Your task to perform on an android device: open a bookmark in the chrome app Image 0: 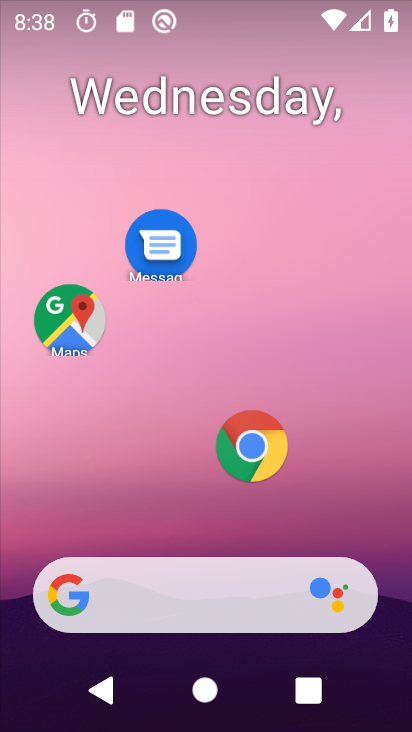
Step 0: press home button
Your task to perform on an android device: open a bookmark in the chrome app Image 1: 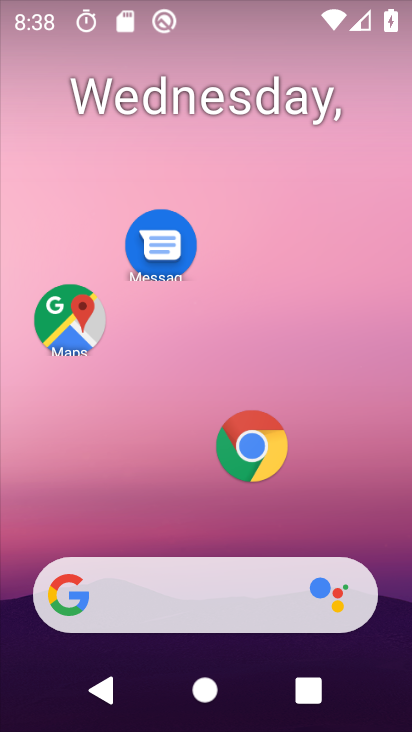
Step 1: drag from (205, 528) to (205, 398)
Your task to perform on an android device: open a bookmark in the chrome app Image 2: 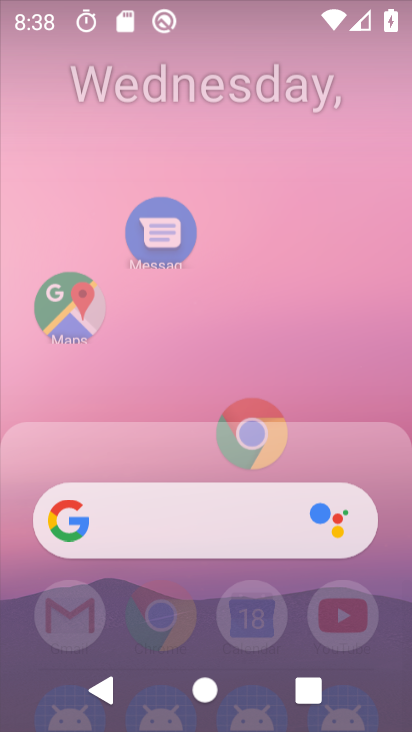
Step 2: click (206, 50)
Your task to perform on an android device: open a bookmark in the chrome app Image 3: 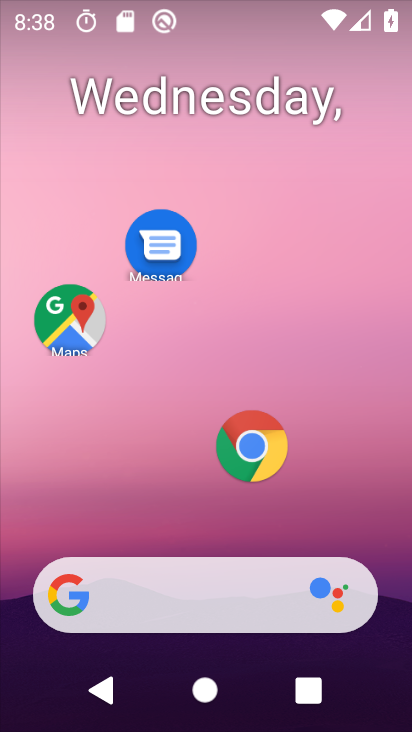
Step 3: click (247, 439)
Your task to perform on an android device: open a bookmark in the chrome app Image 4: 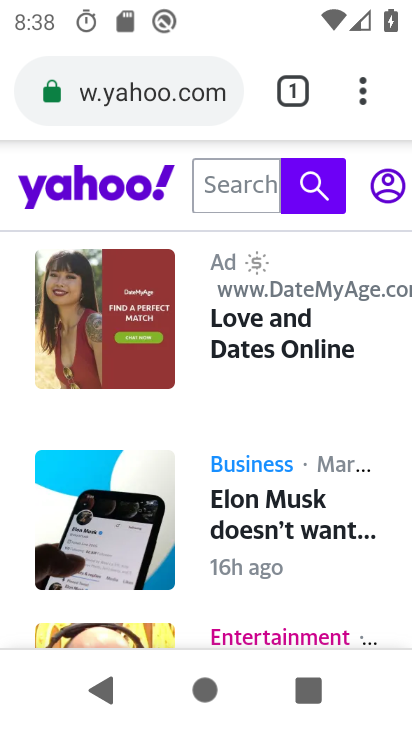
Step 4: click (356, 86)
Your task to perform on an android device: open a bookmark in the chrome app Image 5: 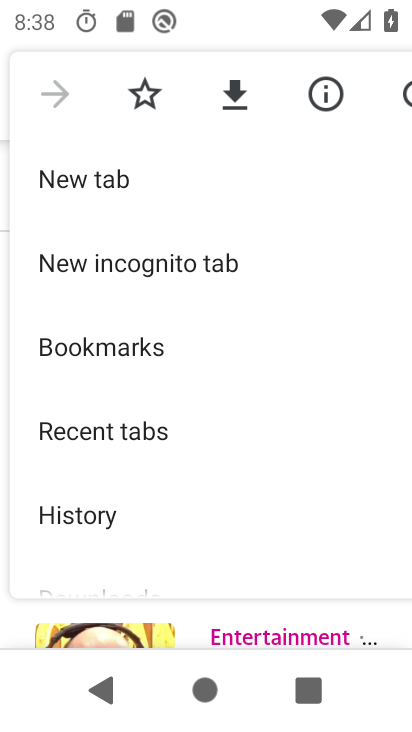
Step 5: click (182, 347)
Your task to perform on an android device: open a bookmark in the chrome app Image 6: 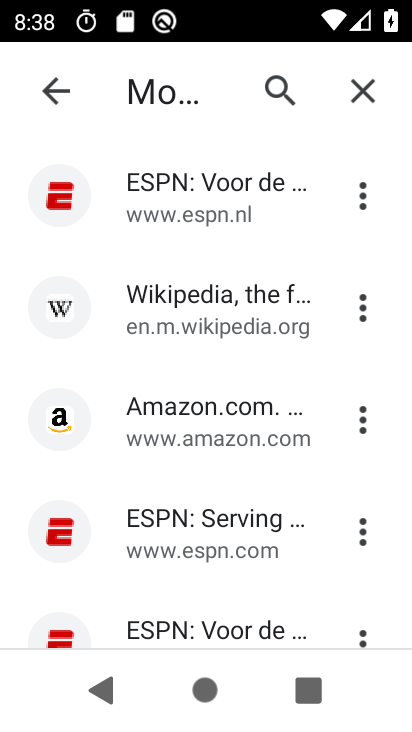
Step 6: drag from (226, 557) to (218, 315)
Your task to perform on an android device: open a bookmark in the chrome app Image 7: 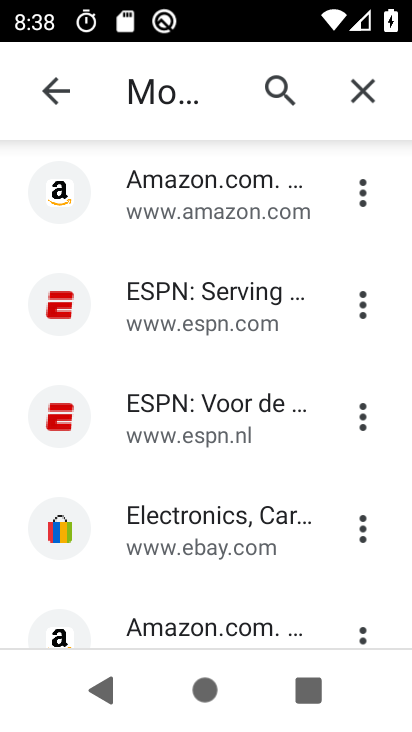
Step 7: click (216, 194)
Your task to perform on an android device: open a bookmark in the chrome app Image 8: 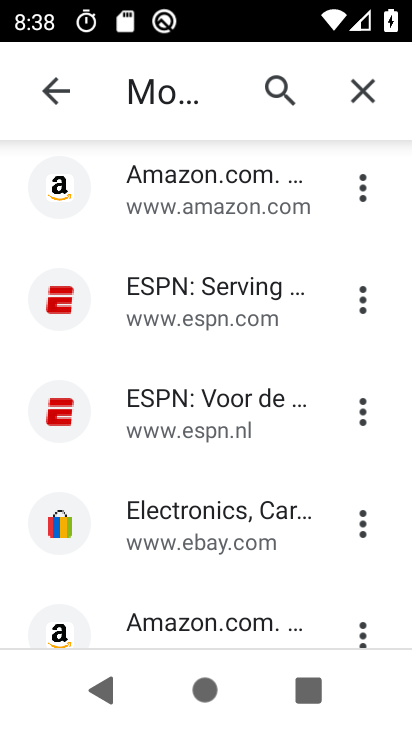
Step 8: drag from (226, 600) to (219, 203)
Your task to perform on an android device: open a bookmark in the chrome app Image 9: 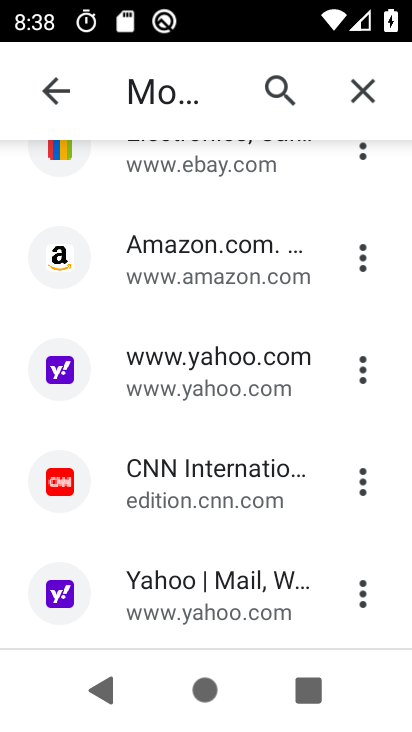
Step 9: click (174, 481)
Your task to perform on an android device: open a bookmark in the chrome app Image 10: 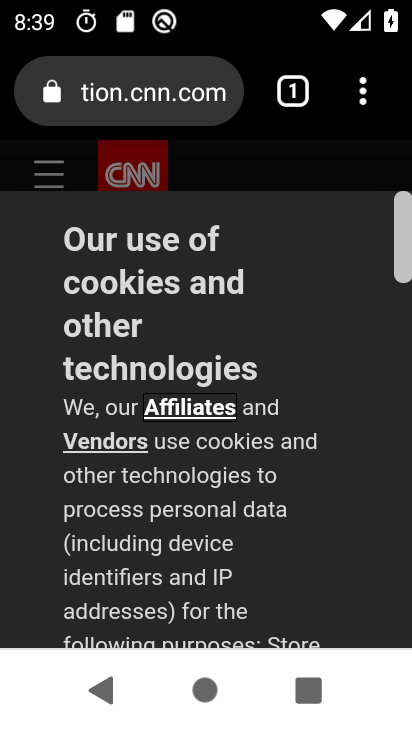
Step 10: drag from (233, 606) to (227, 201)
Your task to perform on an android device: open a bookmark in the chrome app Image 11: 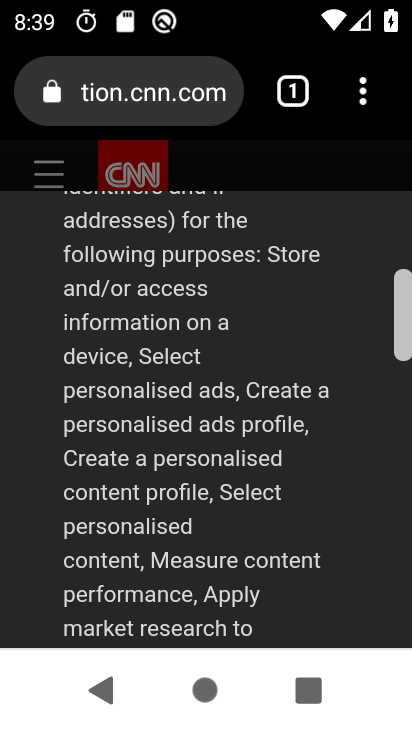
Step 11: drag from (237, 608) to (229, 238)
Your task to perform on an android device: open a bookmark in the chrome app Image 12: 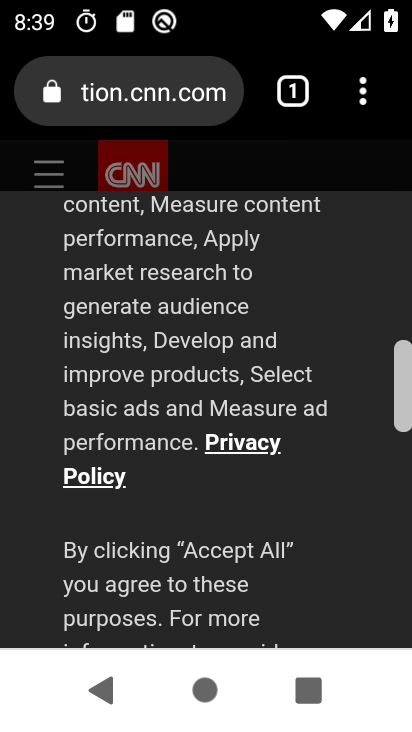
Step 12: drag from (207, 628) to (202, 228)
Your task to perform on an android device: open a bookmark in the chrome app Image 13: 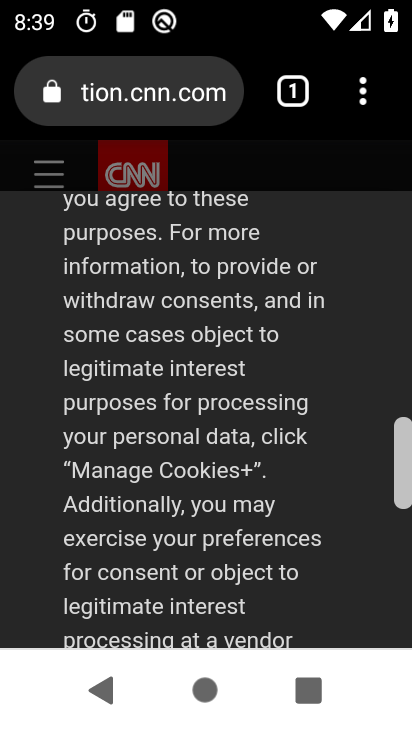
Step 13: drag from (215, 615) to (215, 188)
Your task to perform on an android device: open a bookmark in the chrome app Image 14: 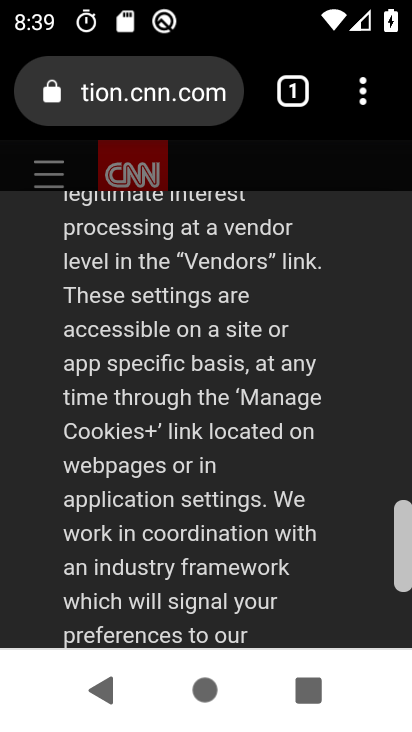
Step 14: drag from (212, 614) to (223, 126)
Your task to perform on an android device: open a bookmark in the chrome app Image 15: 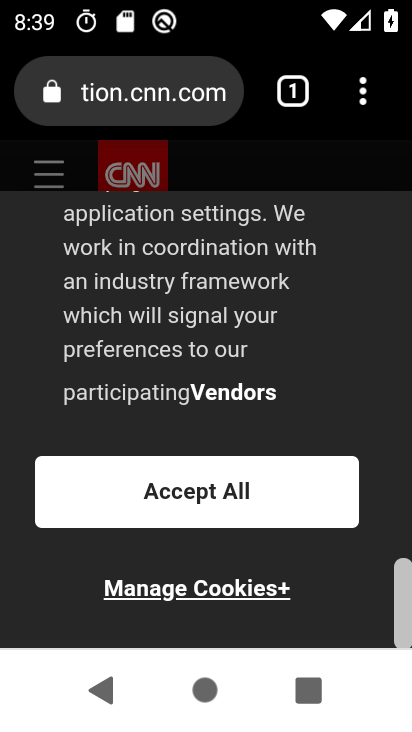
Step 15: click (219, 498)
Your task to perform on an android device: open a bookmark in the chrome app Image 16: 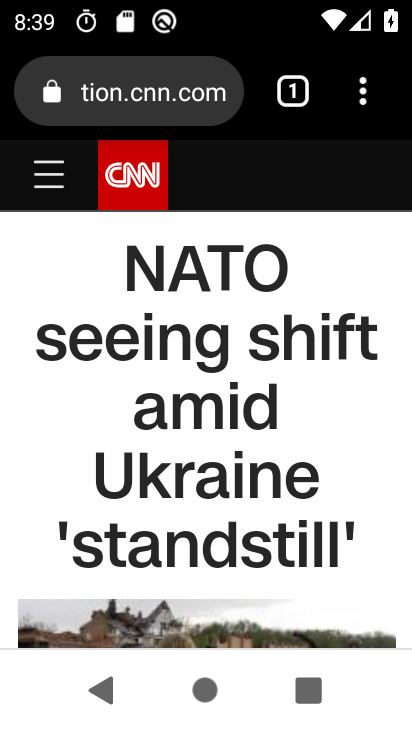
Step 16: task complete